Your task to perform on an android device: Open the calendar and show me this week's events Image 0: 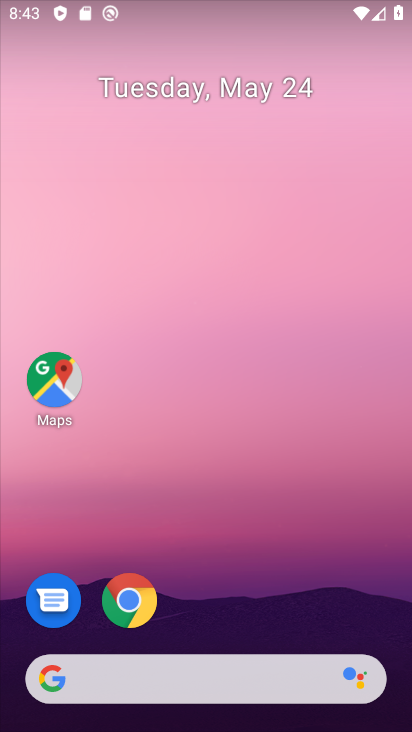
Step 0: click (255, 81)
Your task to perform on an android device: Open the calendar and show me this week's events Image 1: 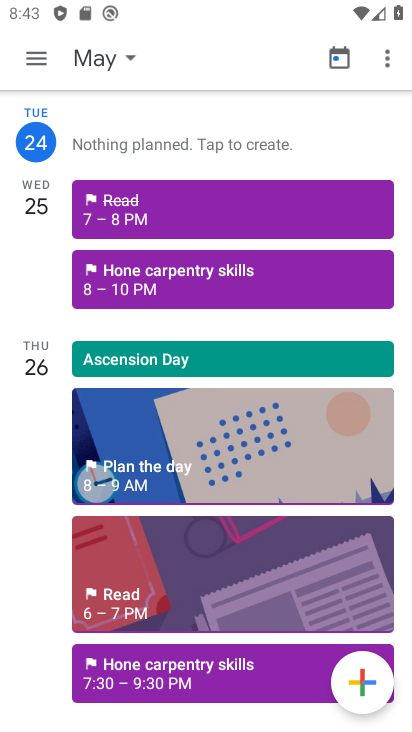
Step 1: click (45, 66)
Your task to perform on an android device: Open the calendar and show me this week's events Image 2: 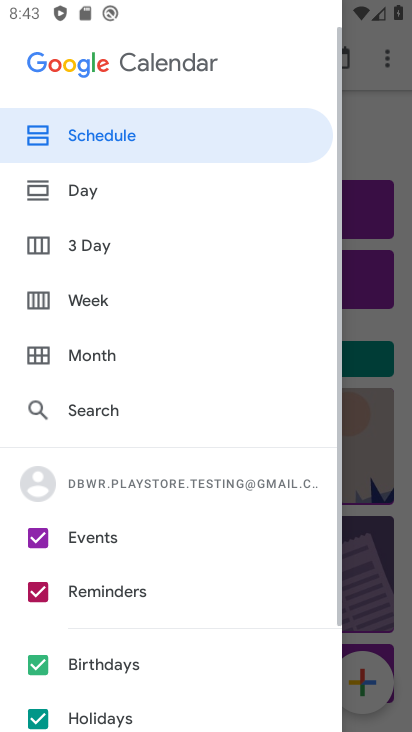
Step 2: click (42, 590)
Your task to perform on an android device: Open the calendar and show me this week's events Image 3: 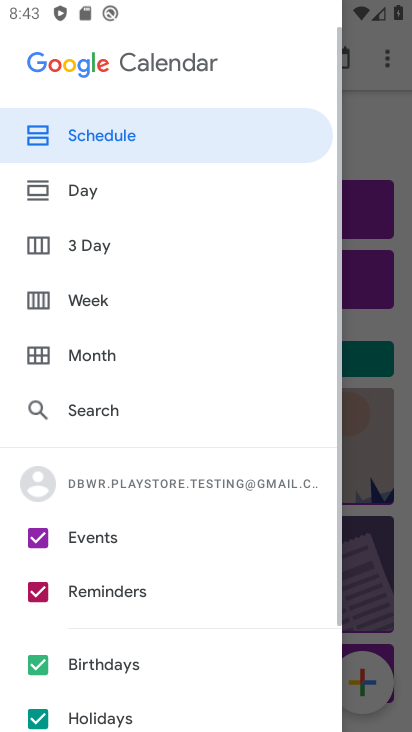
Step 3: click (39, 668)
Your task to perform on an android device: Open the calendar and show me this week's events Image 4: 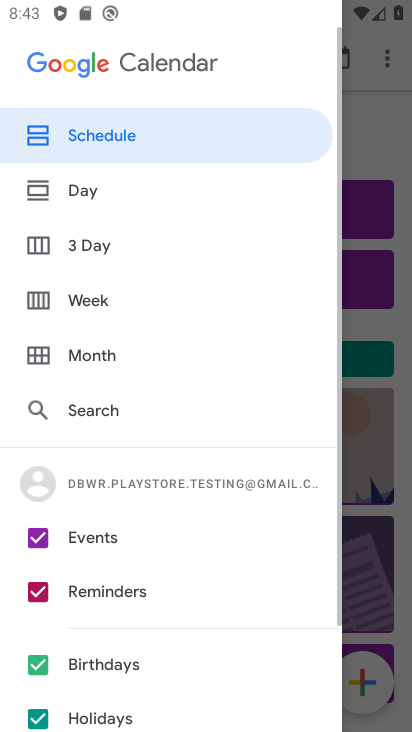
Step 4: click (38, 719)
Your task to perform on an android device: Open the calendar and show me this week's events Image 5: 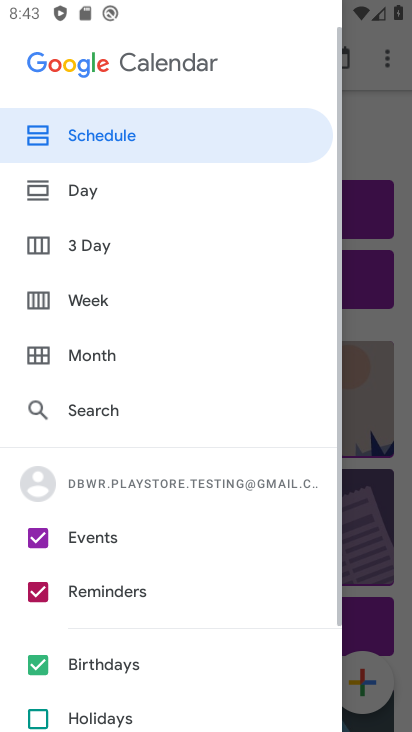
Step 5: click (39, 659)
Your task to perform on an android device: Open the calendar and show me this week's events Image 6: 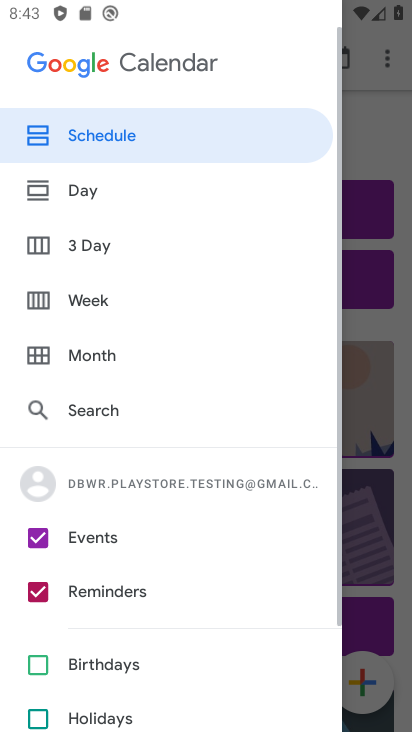
Step 6: click (39, 593)
Your task to perform on an android device: Open the calendar and show me this week's events Image 7: 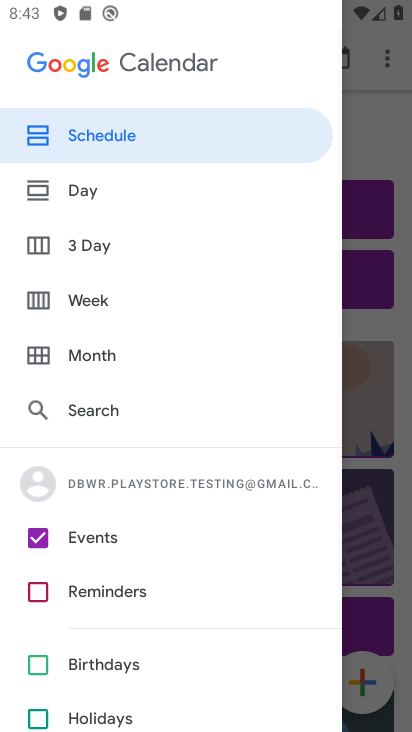
Step 7: click (88, 309)
Your task to perform on an android device: Open the calendar and show me this week's events Image 8: 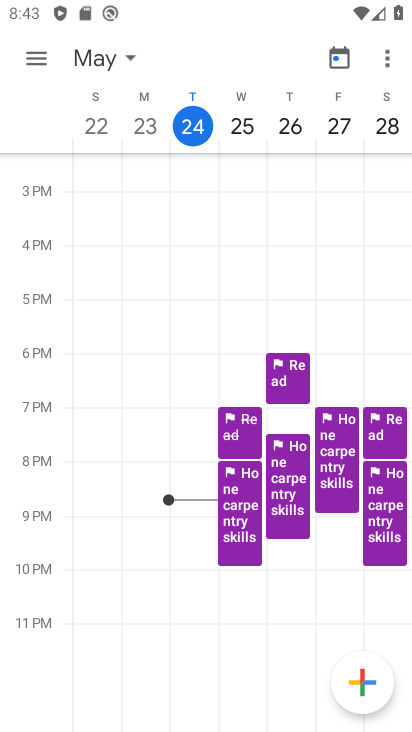
Step 8: task complete